Your task to perform on an android device: What's the weather today? Image 0: 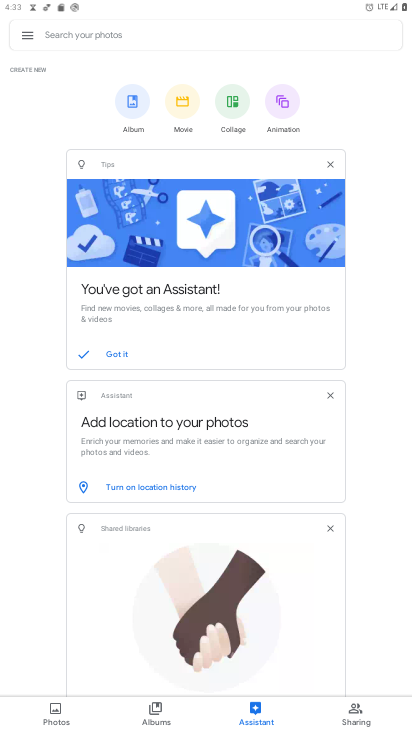
Step 0: press home button
Your task to perform on an android device: What's the weather today? Image 1: 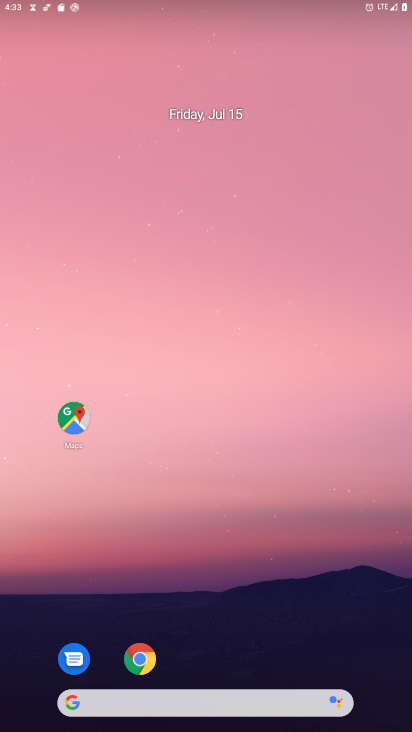
Step 1: drag from (269, 646) to (286, 72)
Your task to perform on an android device: What's the weather today? Image 2: 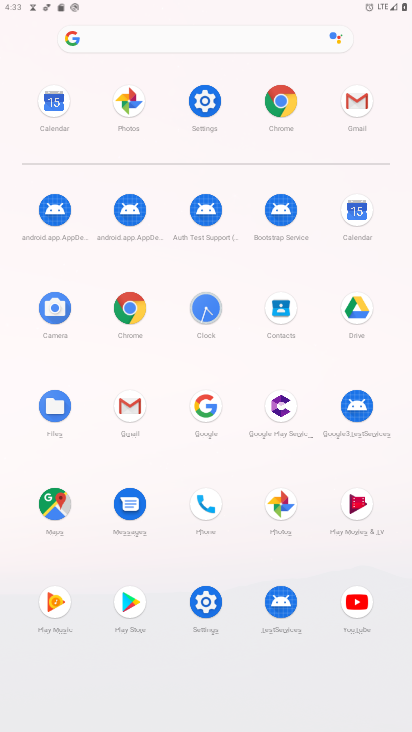
Step 2: click (143, 314)
Your task to perform on an android device: What's the weather today? Image 3: 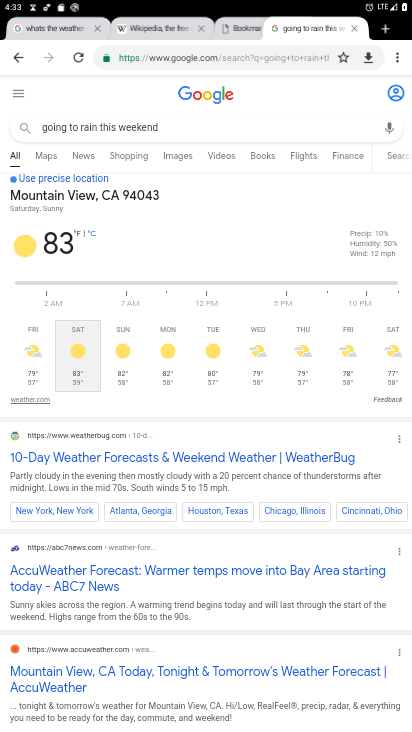
Step 3: click (209, 120)
Your task to perform on an android device: What's the weather today? Image 4: 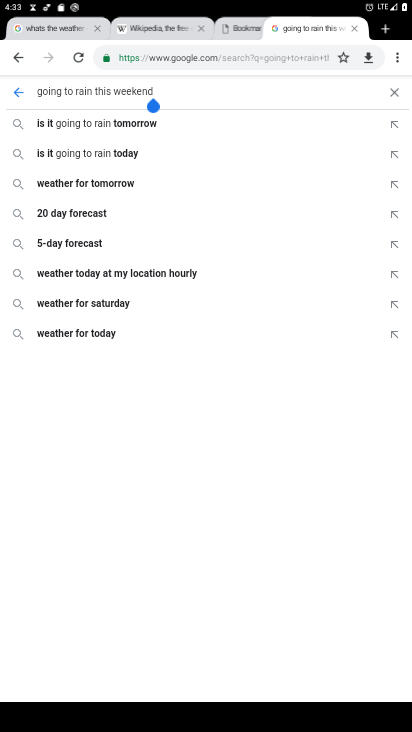
Step 4: click (396, 87)
Your task to perform on an android device: What's the weather today? Image 5: 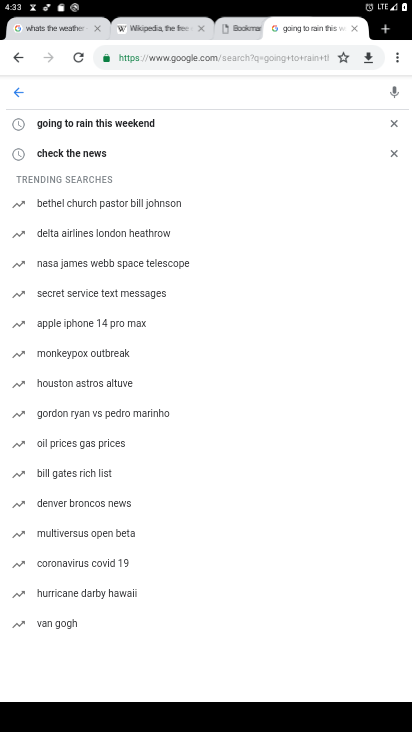
Step 5: type "weather today"
Your task to perform on an android device: What's the weather today? Image 6: 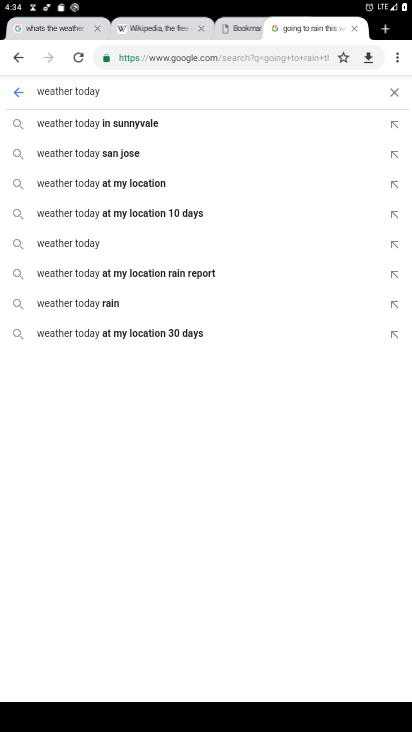
Step 6: click (86, 237)
Your task to perform on an android device: What's the weather today? Image 7: 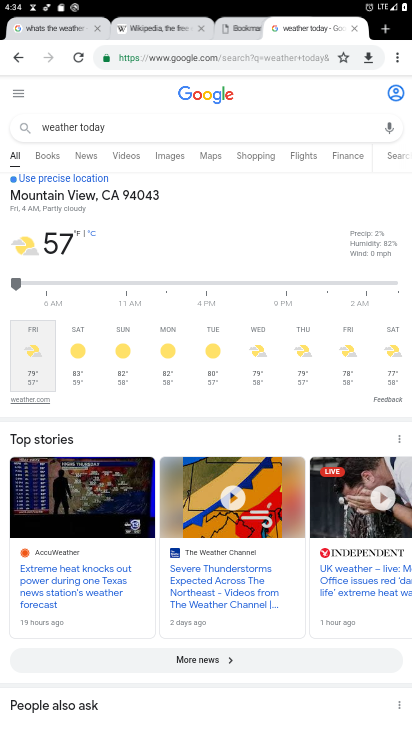
Step 7: task complete